Your task to perform on an android device: Open Reddit.com Image 0: 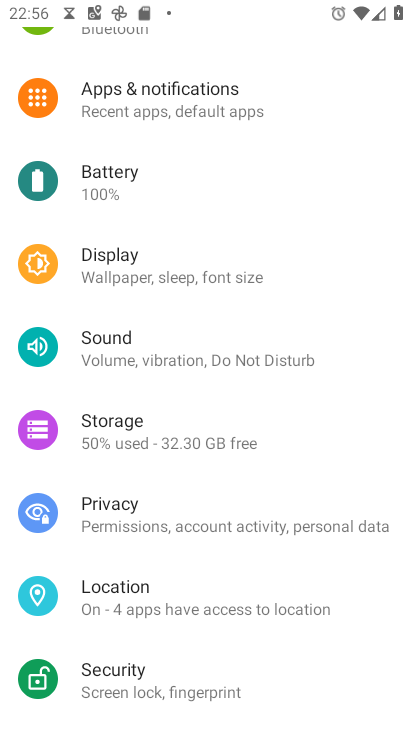
Step 0: press home button
Your task to perform on an android device: Open Reddit.com Image 1: 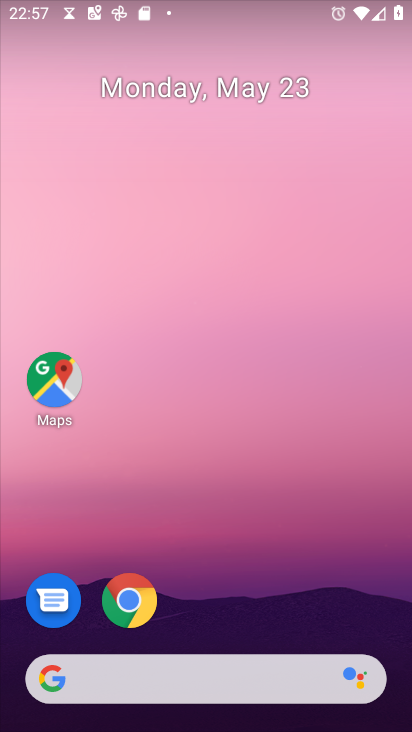
Step 1: click (131, 602)
Your task to perform on an android device: Open Reddit.com Image 2: 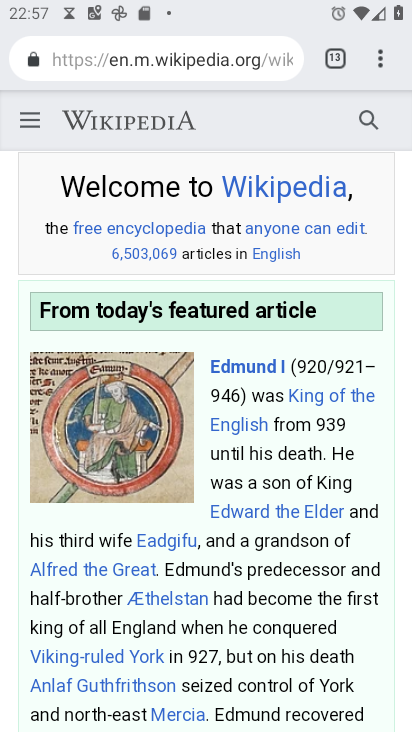
Step 2: click (381, 64)
Your task to perform on an android device: Open Reddit.com Image 3: 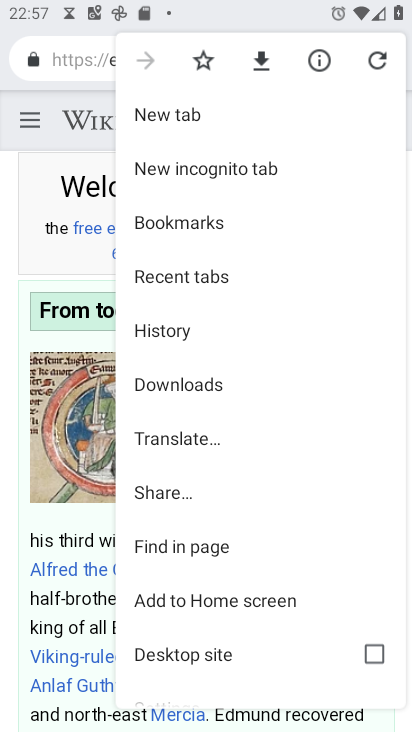
Step 3: click (180, 114)
Your task to perform on an android device: Open Reddit.com Image 4: 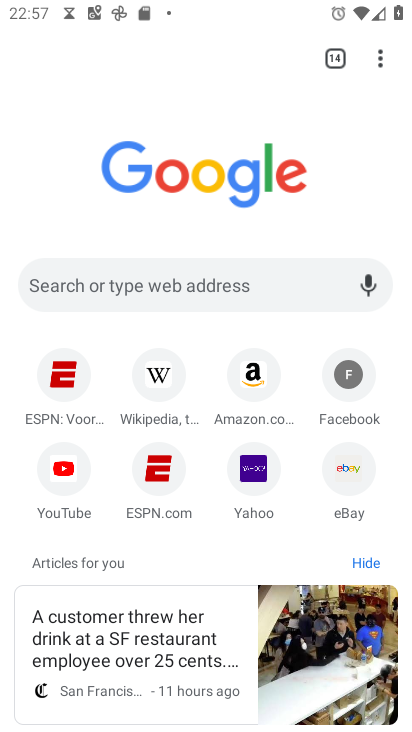
Step 4: click (199, 279)
Your task to perform on an android device: Open Reddit.com Image 5: 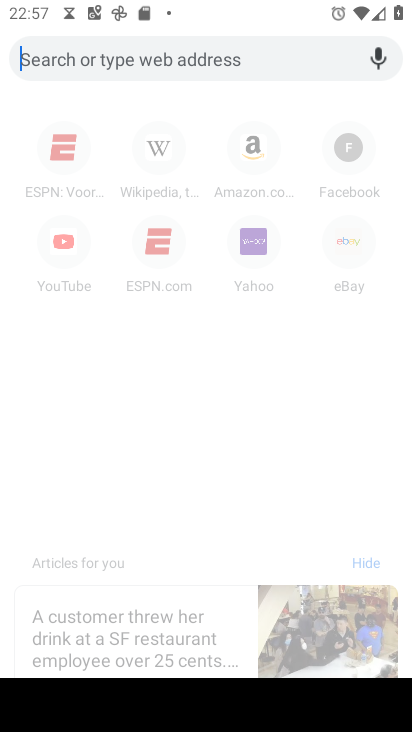
Step 5: type "Reddit.com"
Your task to perform on an android device: Open Reddit.com Image 6: 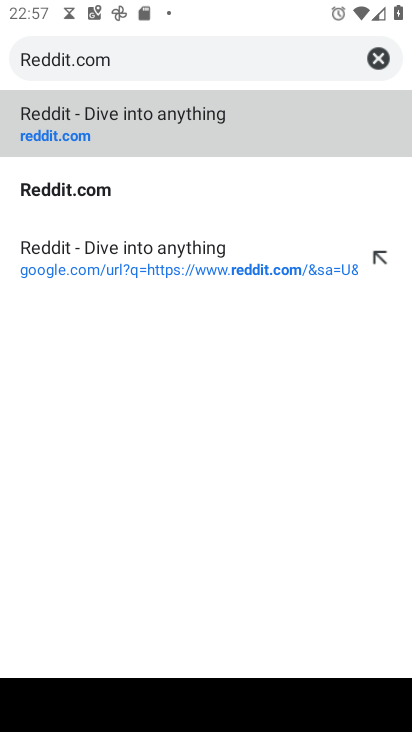
Step 6: click (82, 121)
Your task to perform on an android device: Open Reddit.com Image 7: 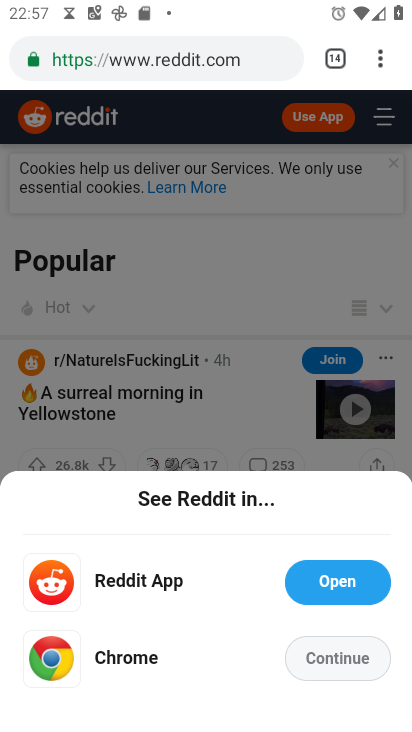
Step 7: task complete